Your task to perform on an android device: Search for "apple airpods pro" on ebay.com, select the first entry, and add it to the cart. Image 0: 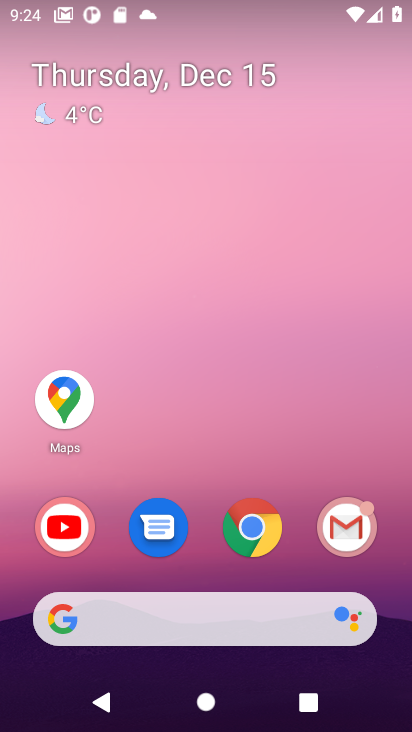
Step 0: click (246, 534)
Your task to perform on an android device: Search for "apple airpods pro" on ebay.com, select the first entry, and add it to the cart. Image 1: 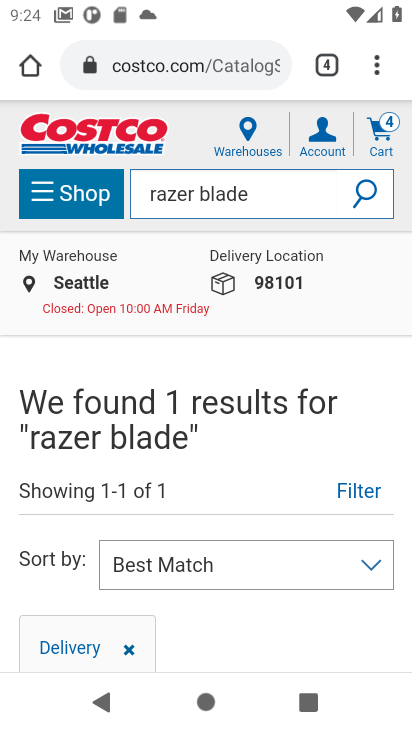
Step 1: click (231, 214)
Your task to perform on an android device: Search for "apple airpods pro" on ebay.com, select the first entry, and add it to the cart. Image 2: 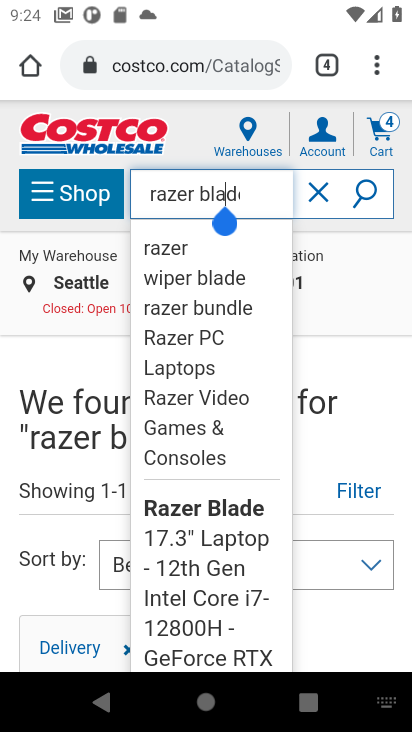
Step 2: click (247, 87)
Your task to perform on an android device: Search for "apple airpods pro" on ebay.com, select the first entry, and add it to the cart. Image 3: 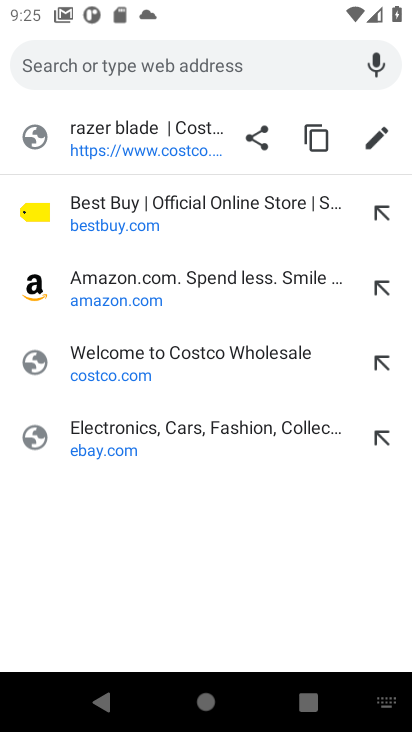
Step 3: click (186, 454)
Your task to perform on an android device: Search for "apple airpods pro" on ebay.com, select the first entry, and add it to the cart. Image 4: 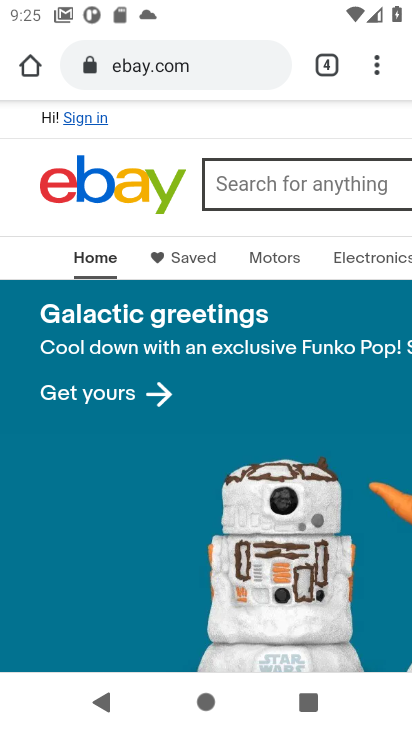
Step 4: click (245, 183)
Your task to perform on an android device: Search for "apple airpods pro" on ebay.com, select the first entry, and add it to the cart. Image 5: 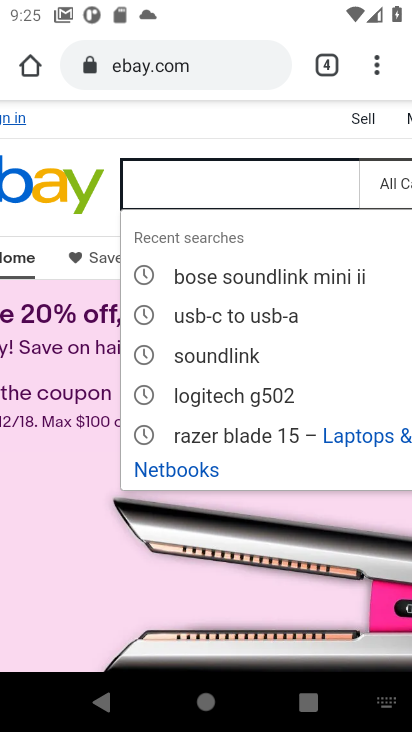
Step 5: type "apple airpod"
Your task to perform on an android device: Search for "apple airpods pro" on ebay.com, select the first entry, and add it to the cart. Image 6: 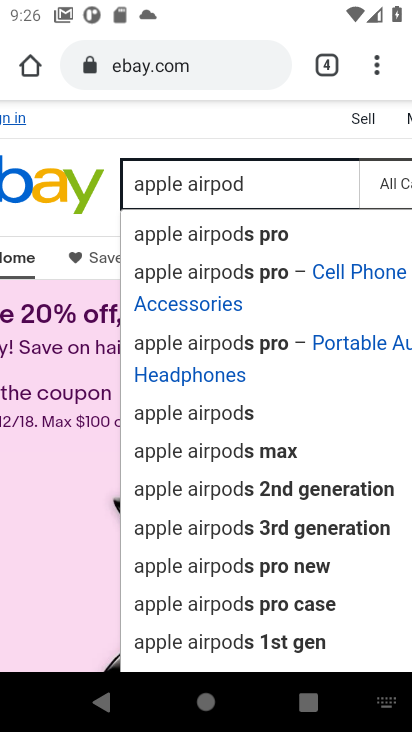
Step 6: click (248, 142)
Your task to perform on an android device: Search for "apple airpods pro" on ebay.com, select the first entry, and add it to the cart. Image 7: 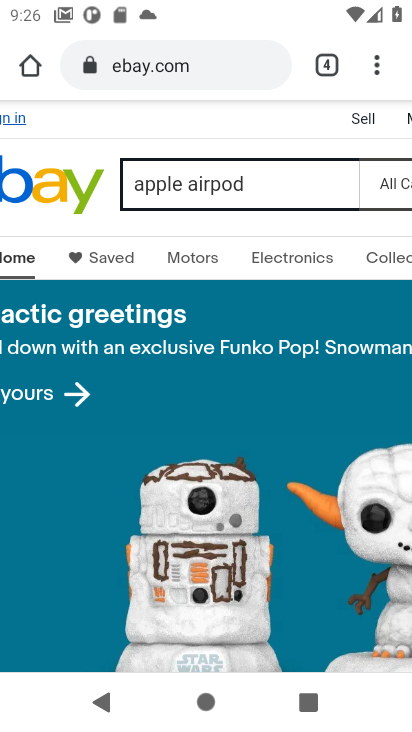
Step 7: drag from (341, 221) to (92, 175)
Your task to perform on an android device: Search for "apple airpods pro" on ebay.com, select the first entry, and add it to the cart. Image 8: 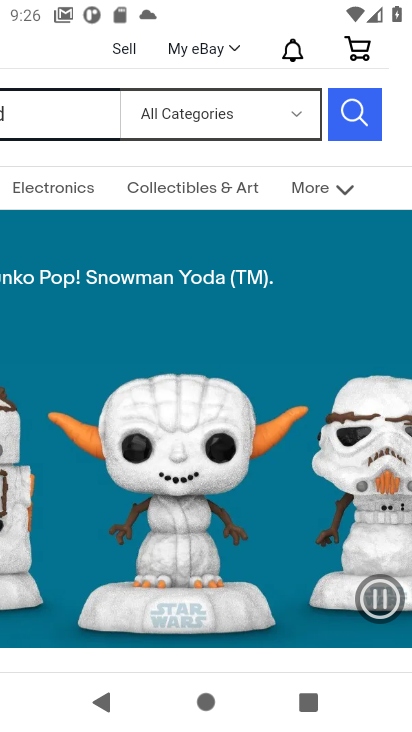
Step 8: click (353, 134)
Your task to perform on an android device: Search for "apple airpods pro" on ebay.com, select the first entry, and add it to the cart. Image 9: 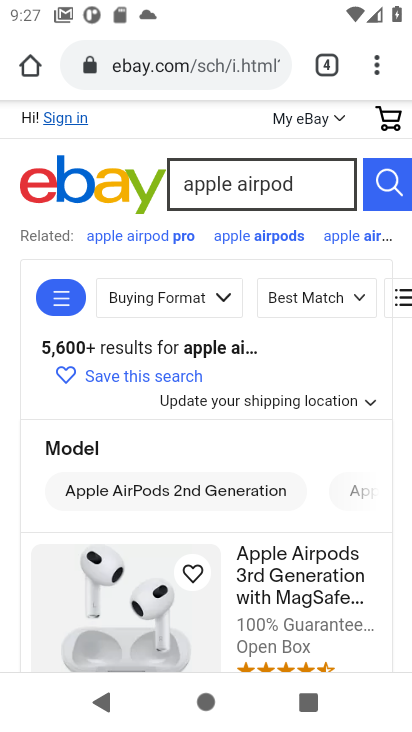
Step 9: click (285, 613)
Your task to perform on an android device: Search for "apple airpods pro" on ebay.com, select the first entry, and add it to the cart. Image 10: 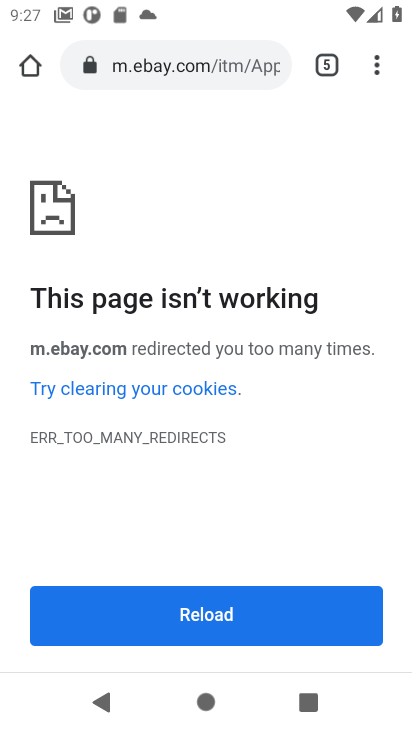
Step 10: task complete